Your task to perform on an android device: stop showing notifications on the lock screen Image 0: 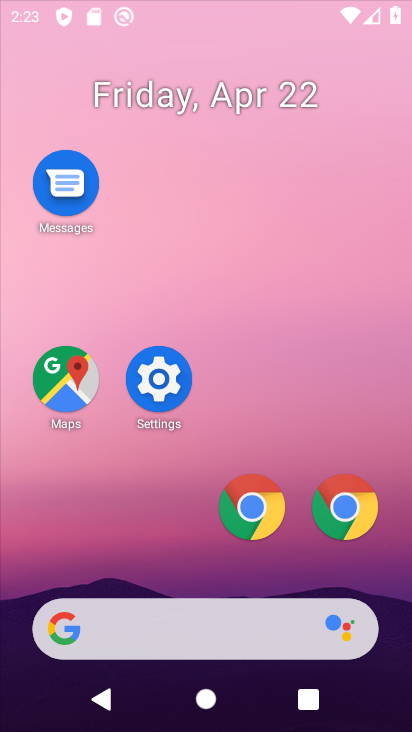
Step 0: drag from (284, 683) to (180, 166)
Your task to perform on an android device: stop showing notifications on the lock screen Image 1: 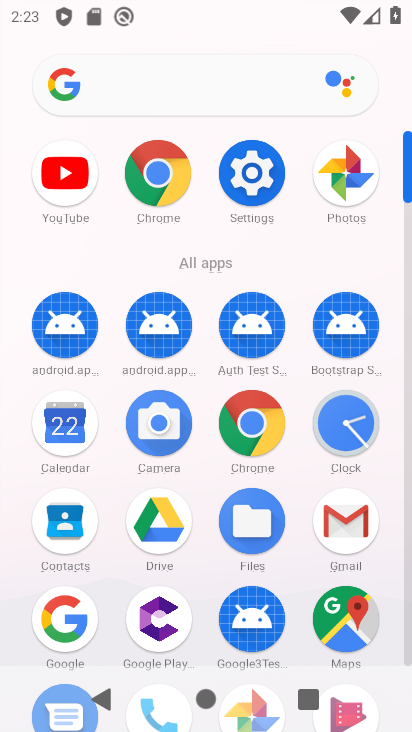
Step 1: click (239, 184)
Your task to perform on an android device: stop showing notifications on the lock screen Image 2: 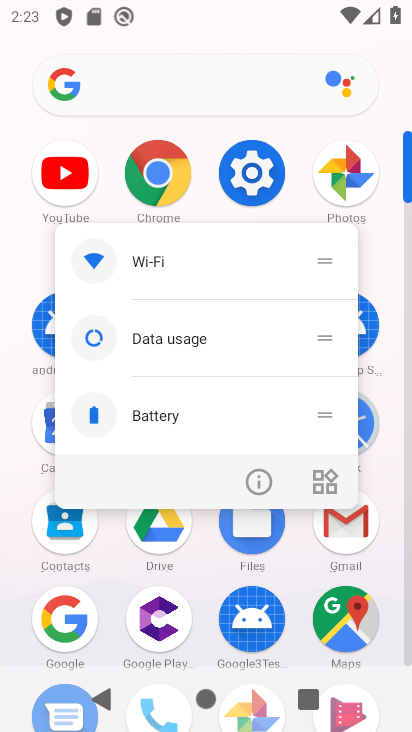
Step 2: click (247, 174)
Your task to perform on an android device: stop showing notifications on the lock screen Image 3: 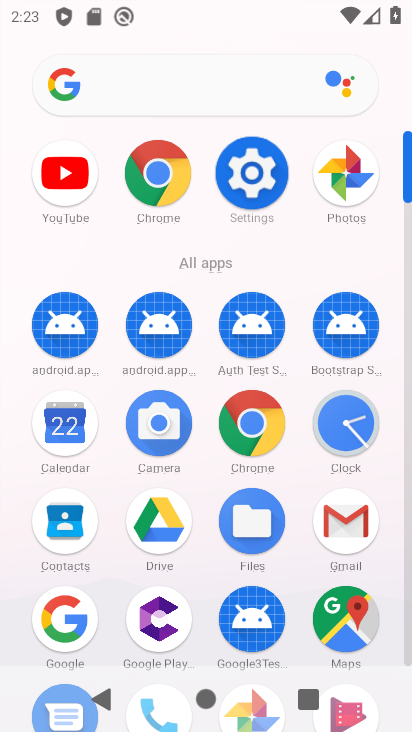
Step 3: click (247, 174)
Your task to perform on an android device: stop showing notifications on the lock screen Image 4: 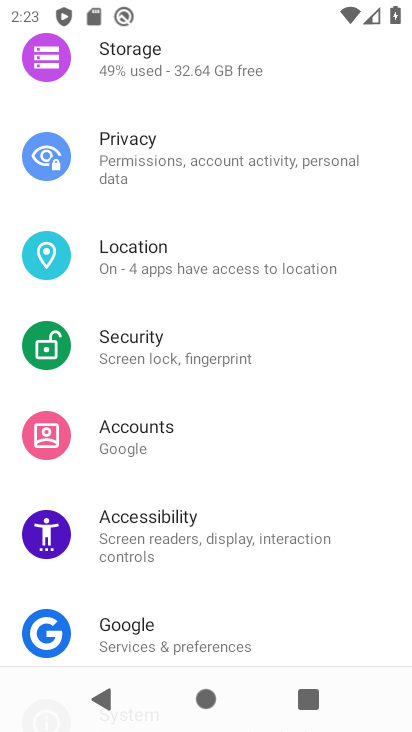
Step 4: click (247, 174)
Your task to perform on an android device: stop showing notifications on the lock screen Image 5: 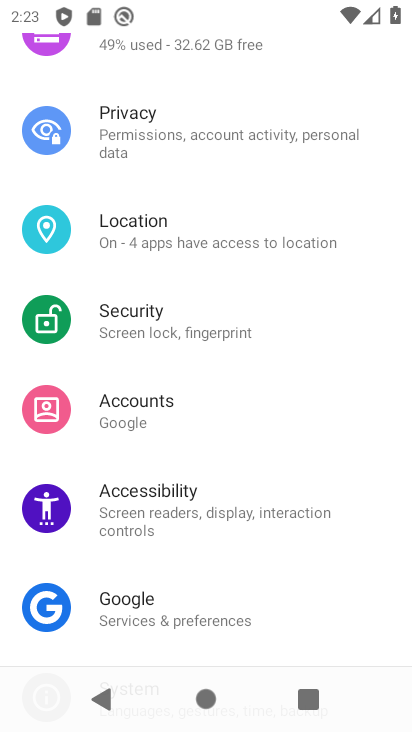
Step 5: click (247, 174)
Your task to perform on an android device: stop showing notifications on the lock screen Image 6: 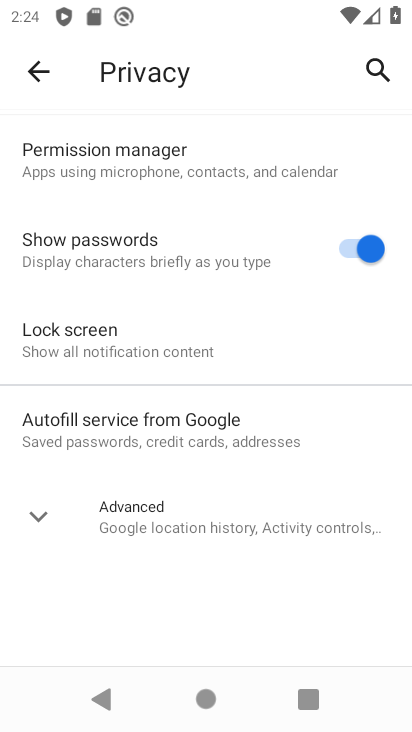
Step 6: click (29, 69)
Your task to perform on an android device: stop showing notifications on the lock screen Image 7: 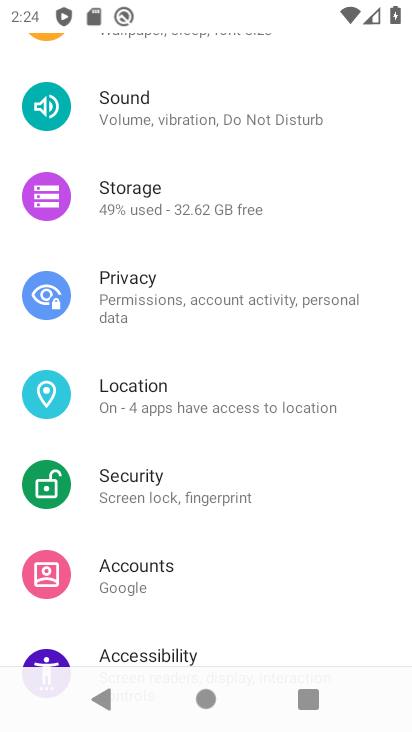
Step 7: drag from (167, 355) to (198, 527)
Your task to perform on an android device: stop showing notifications on the lock screen Image 8: 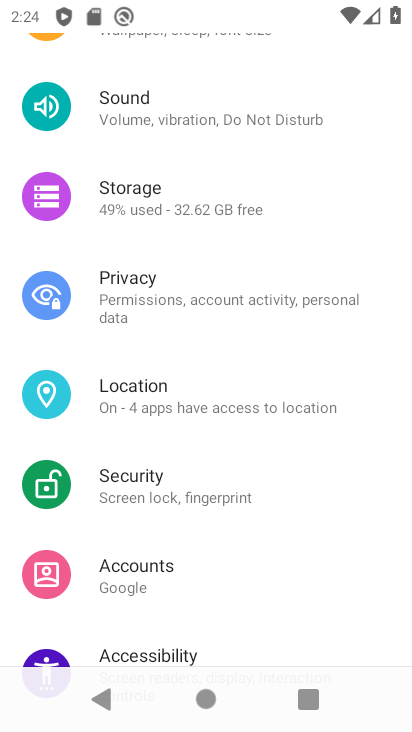
Step 8: drag from (223, 205) to (293, 440)
Your task to perform on an android device: stop showing notifications on the lock screen Image 9: 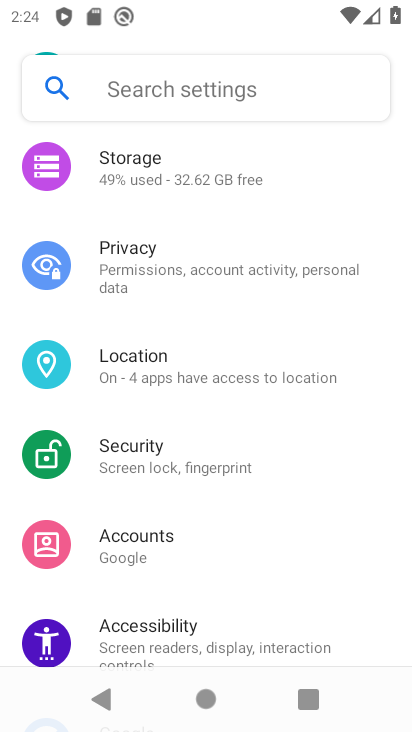
Step 9: drag from (206, 496) to (212, 547)
Your task to perform on an android device: stop showing notifications on the lock screen Image 10: 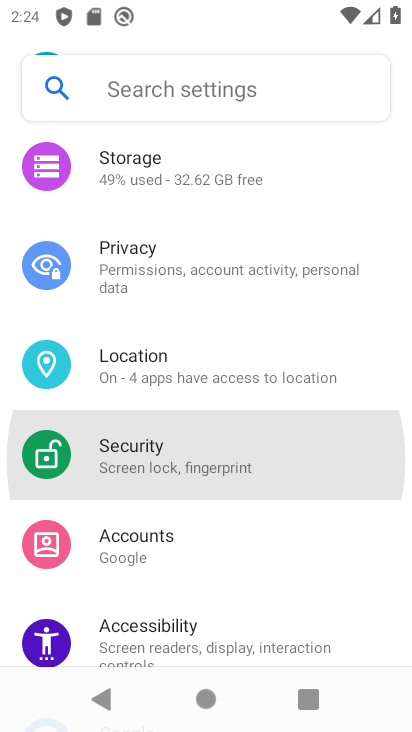
Step 10: drag from (175, 521) to (175, 595)
Your task to perform on an android device: stop showing notifications on the lock screen Image 11: 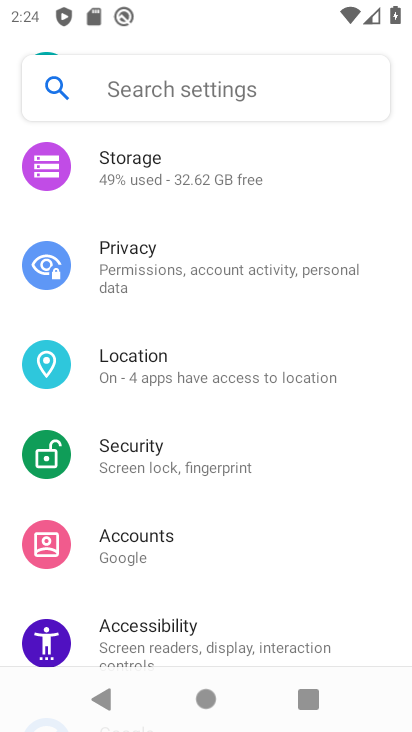
Step 11: drag from (157, 230) to (206, 629)
Your task to perform on an android device: stop showing notifications on the lock screen Image 12: 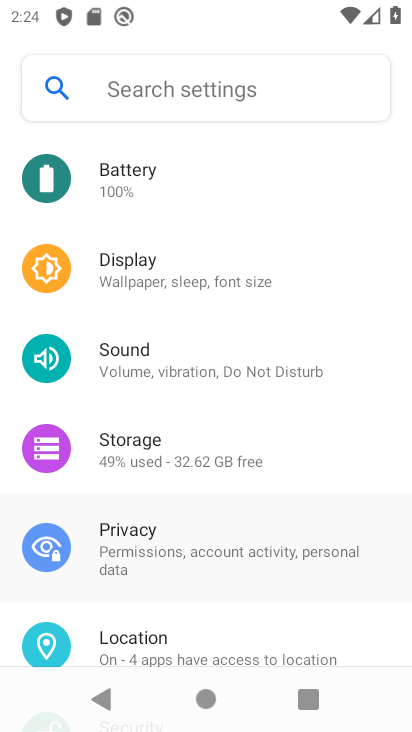
Step 12: click (243, 625)
Your task to perform on an android device: stop showing notifications on the lock screen Image 13: 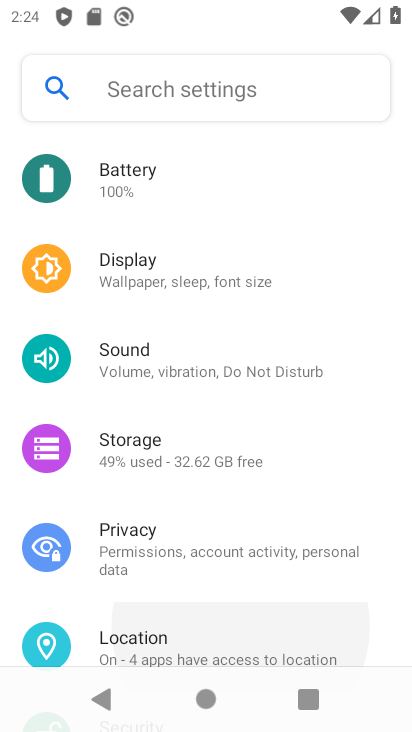
Step 13: drag from (165, 266) to (223, 678)
Your task to perform on an android device: stop showing notifications on the lock screen Image 14: 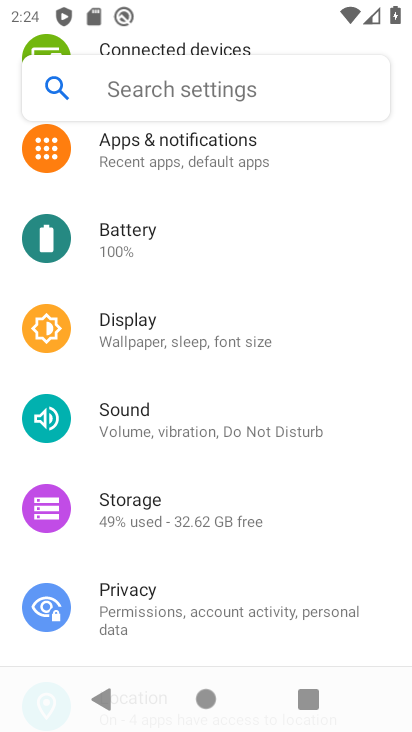
Step 14: click (178, 141)
Your task to perform on an android device: stop showing notifications on the lock screen Image 15: 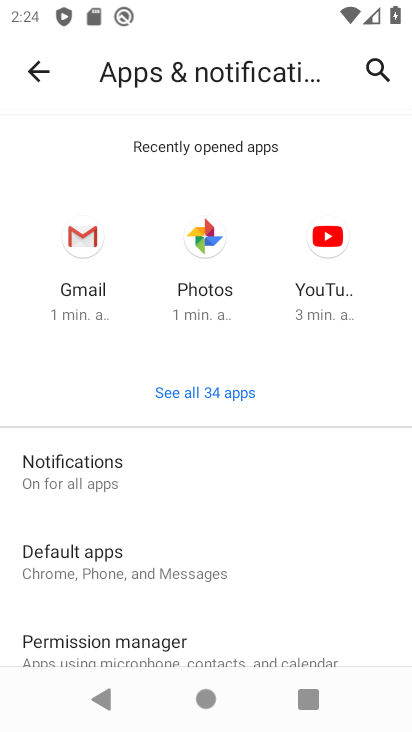
Step 15: drag from (201, 567) to (109, 188)
Your task to perform on an android device: stop showing notifications on the lock screen Image 16: 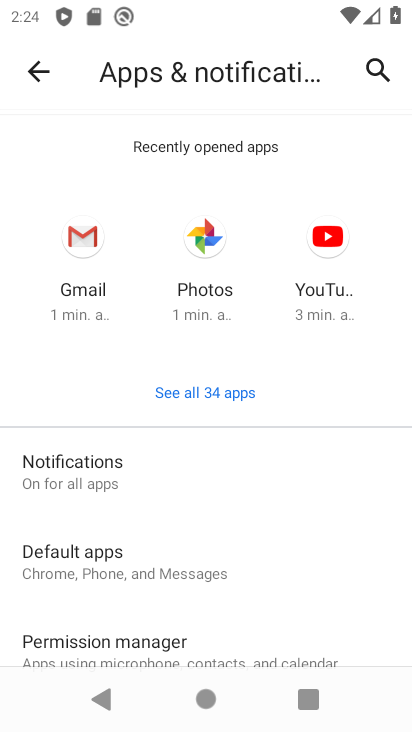
Step 16: click (76, 456)
Your task to perform on an android device: stop showing notifications on the lock screen Image 17: 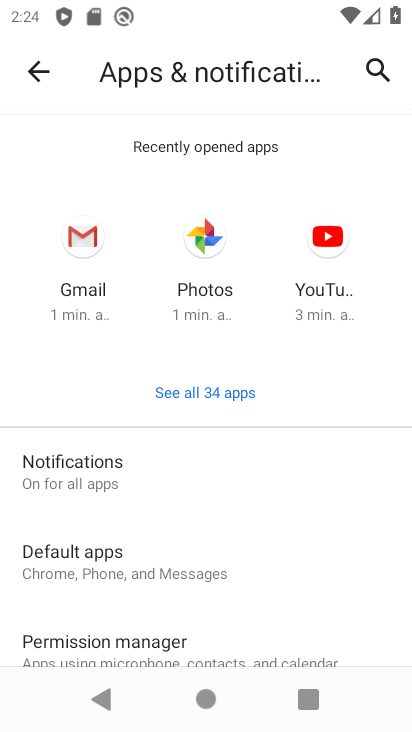
Step 17: click (72, 467)
Your task to perform on an android device: stop showing notifications on the lock screen Image 18: 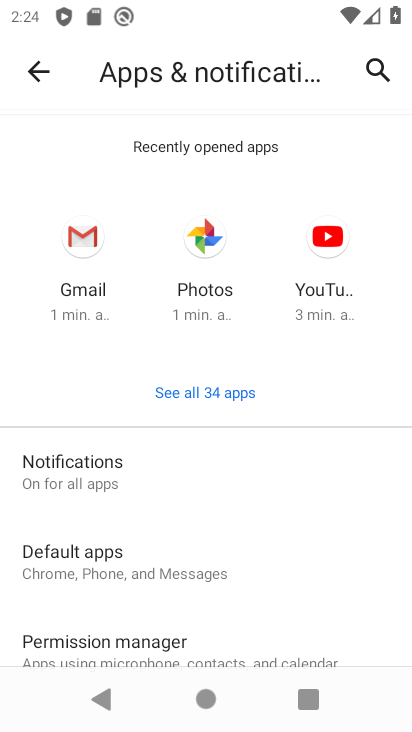
Step 18: click (72, 467)
Your task to perform on an android device: stop showing notifications on the lock screen Image 19: 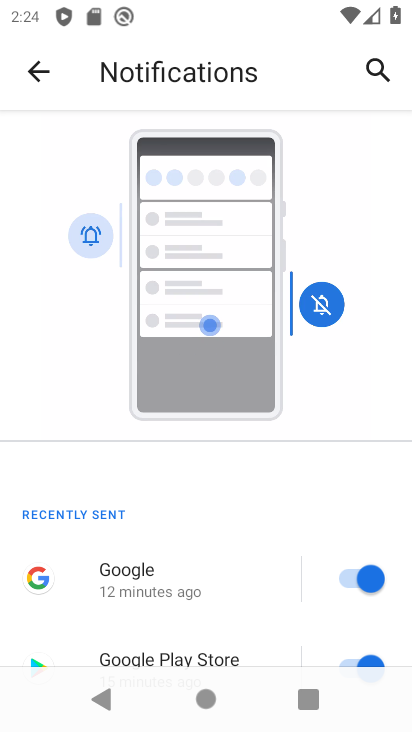
Step 19: drag from (189, 552) to (87, 294)
Your task to perform on an android device: stop showing notifications on the lock screen Image 20: 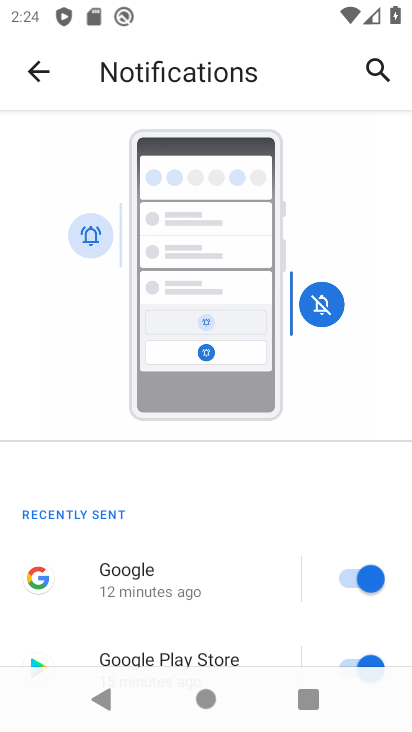
Step 20: drag from (151, 487) to (77, 298)
Your task to perform on an android device: stop showing notifications on the lock screen Image 21: 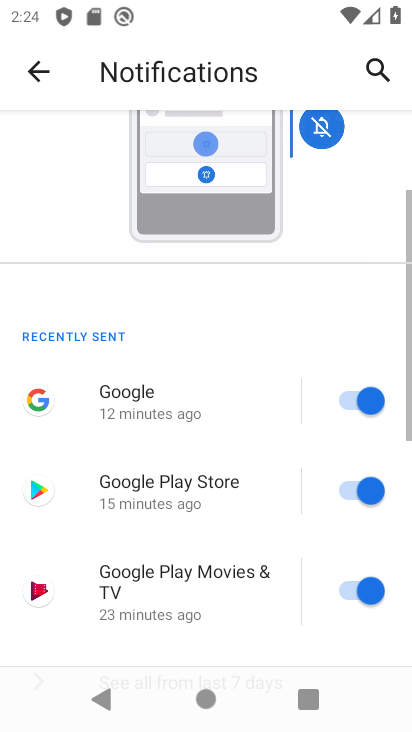
Step 21: drag from (231, 624) to (206, 342)
Your task to perform on an android device: stop showing notifications on the lock screen Image 22: 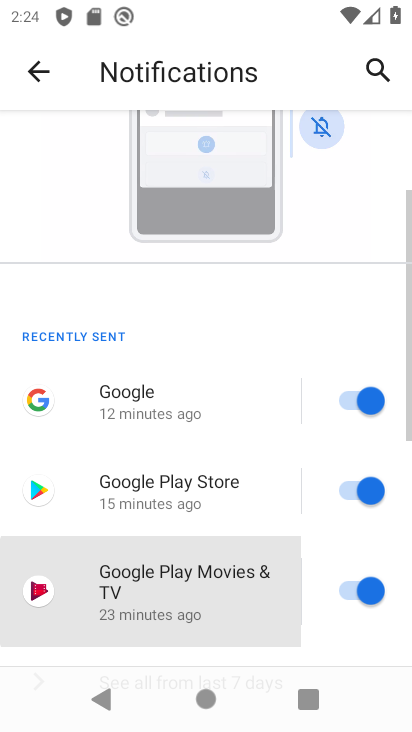
Step 22: drag from (215, 591) to (173, 221)
Your task to perform on an android device: stop showing notifications on the lock screen Image 23: 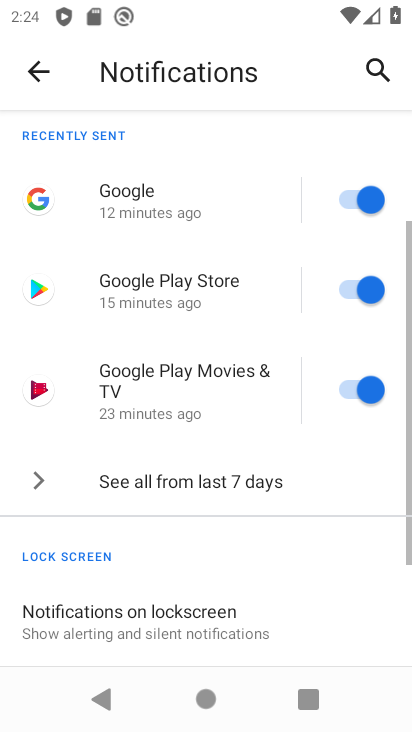
Step 23: drag from (176, 450) to (160, 180)
Your task to perform on an android device: stop showing notifications on the lock screen Image 24: 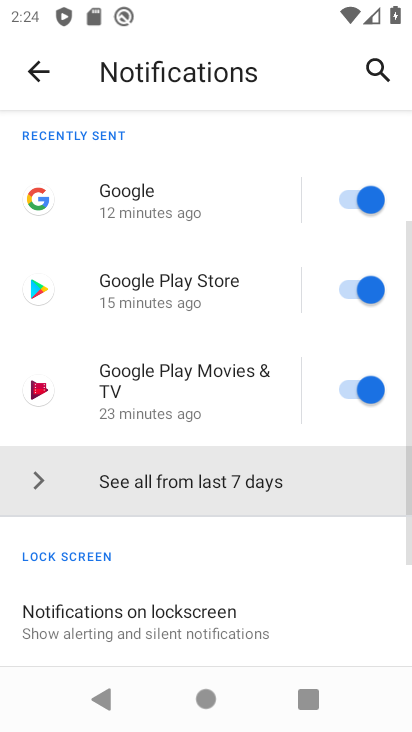
Step 24: drag from (226, 417) to (222, 101)
Your task to perform on an android device: stop showing notifications on the lock screen Image 25: 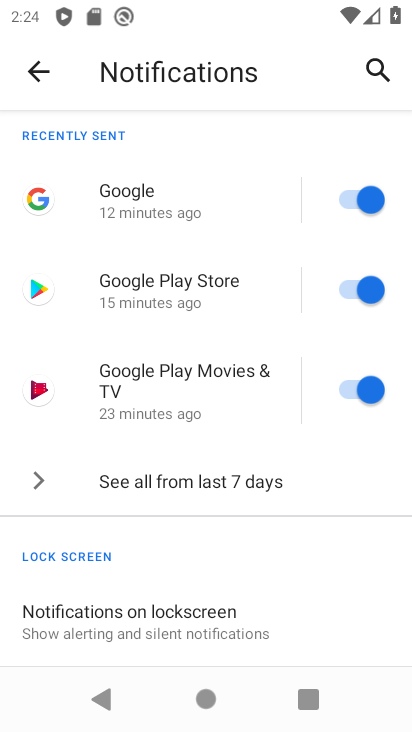
Step 25: click (160, 618)
Your task to perform on an android device: stop showing notifications on the lock screen Image 26: 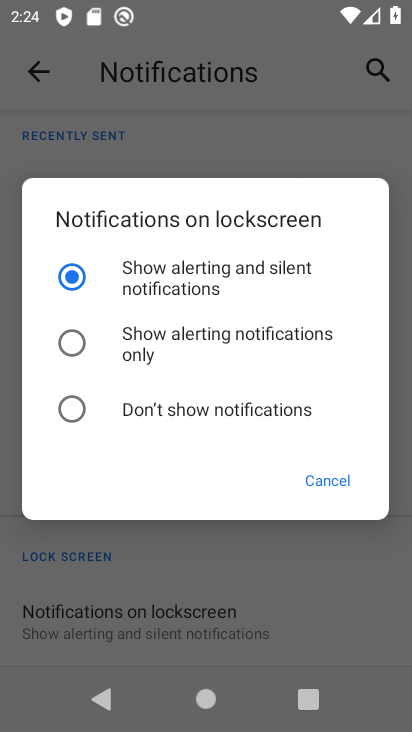
Step 26: click (329, 473)
Your task to perform on an android device: stop showing notifications on the lock screen Image 27: 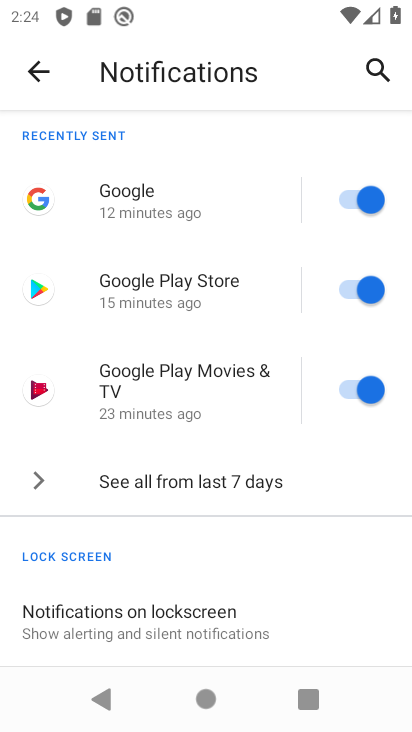
Step 27: task complete